Your task to perform on an android device: empty trash in google photos Image 0: 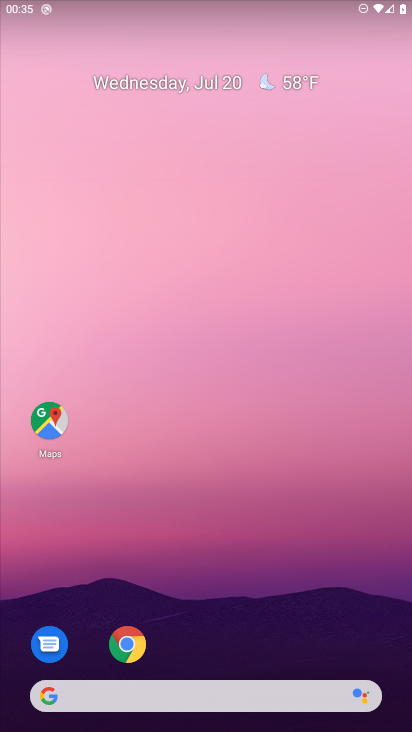
Step 0: drag from (21, 693) to (147, 300)
Your task to perform on an android device: empty trash in google photos Image 1: 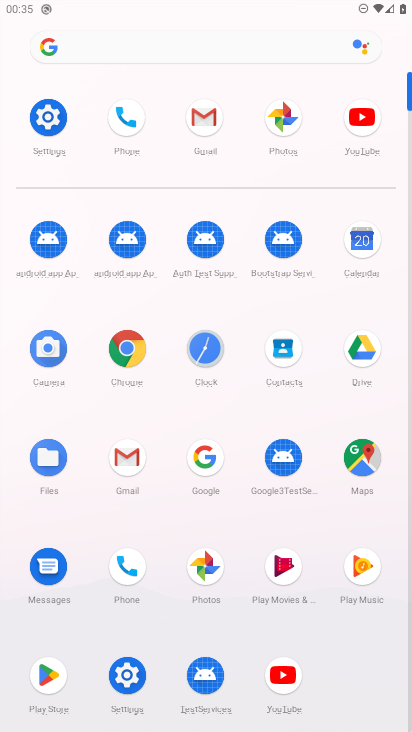
Step 1: click (133, 470)
Your task to perform on an android device: empty trash in google photos Image 2: 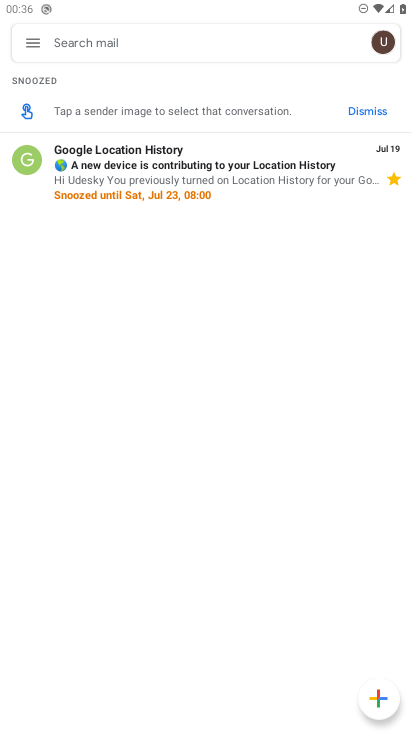
Step 2: click (34, 54)
Your task to perform on an android device: empty trash in google photos Image 3: 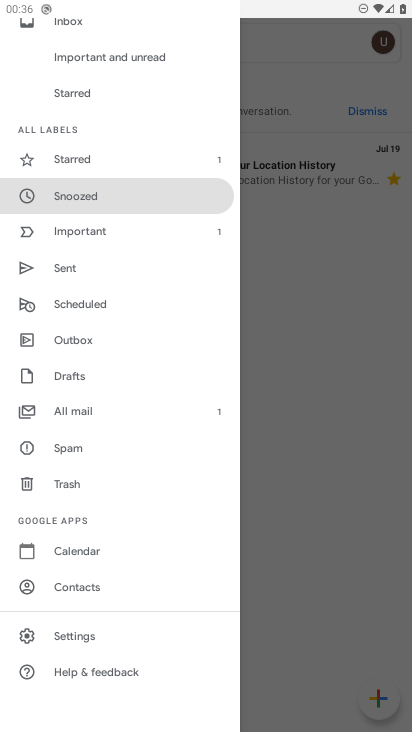
Step 3: click (83, 478)
Your task to perform on an android device: empty trash in google photos Image 4: 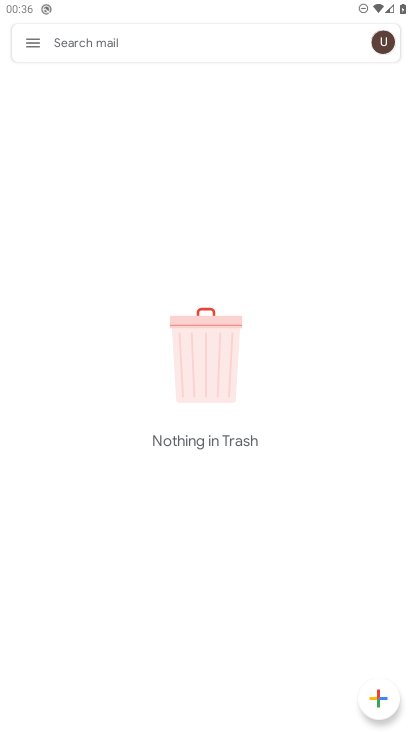
Step 4: task complete